Your task to perform on an android device: turn on the 12-hour format for clock Image 0: 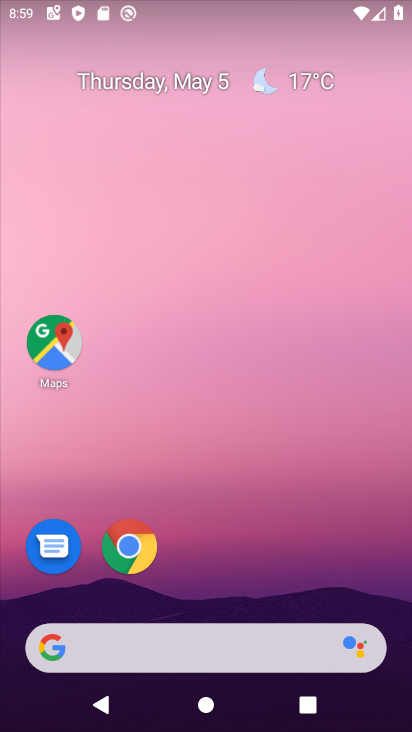
Step 0: drag from (194, 641) to (294, 273)
Your task to perform on an android device: turn on the 12-hour format for clock Image 1: 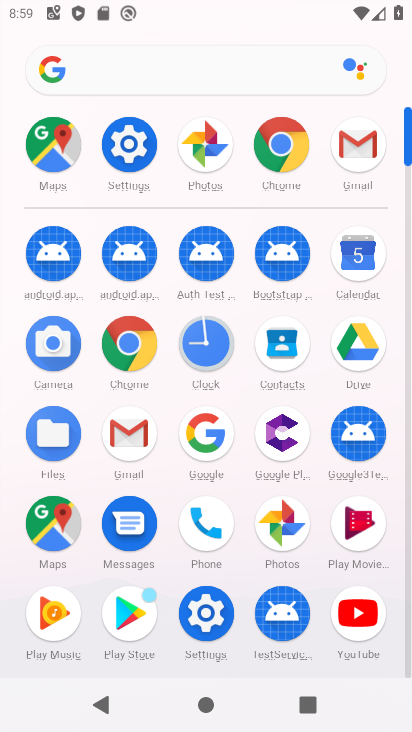
Step 1: click (209, 354)
Your task to perform on an android device: turn on the 12-hour format for clock Image 2: 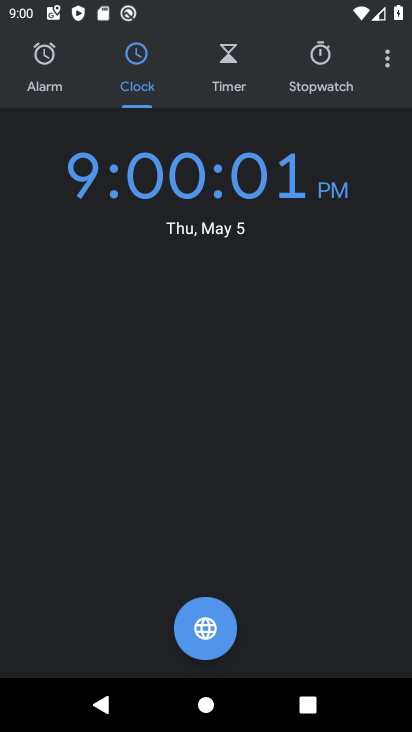
Step 2: click (386, 65)
Your task to perform on an android device: turn on the 12-hour format for clock Image 3: 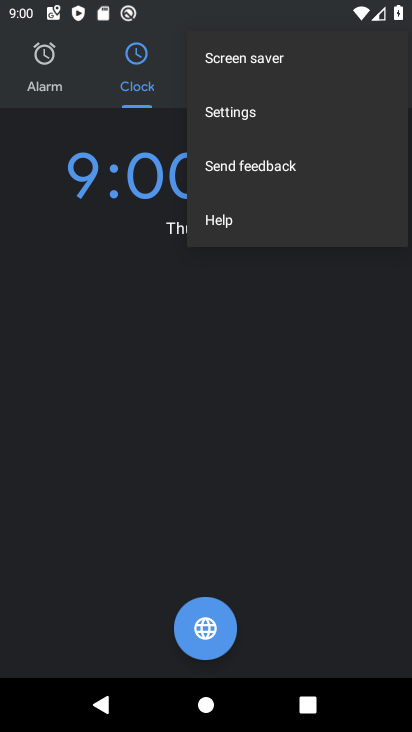
Step 3: click (234, 113)
Your task to perform on an android device: turn on the 12-hour format for clock Image 4: 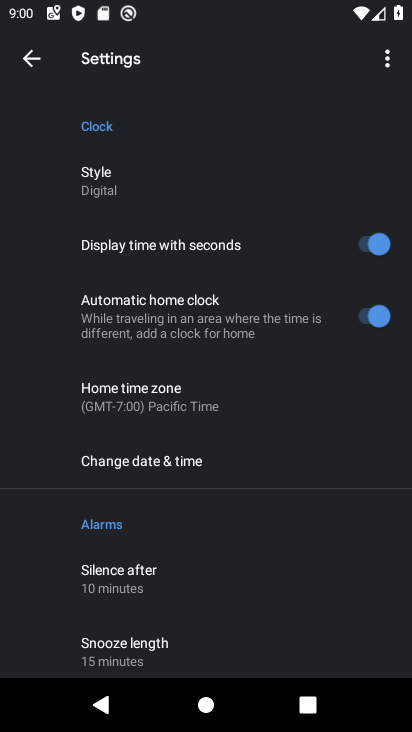
Step 4: click (166, 463)
Your task to perform on an android device: turn on the 12-hour format for clock Image 5: 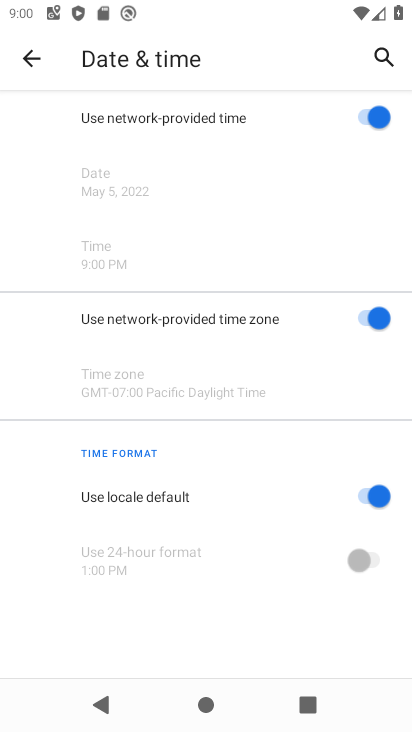
Step 5: task complete